Your task to perform on an android device: turn on the 12-hour format for clock Image 0: 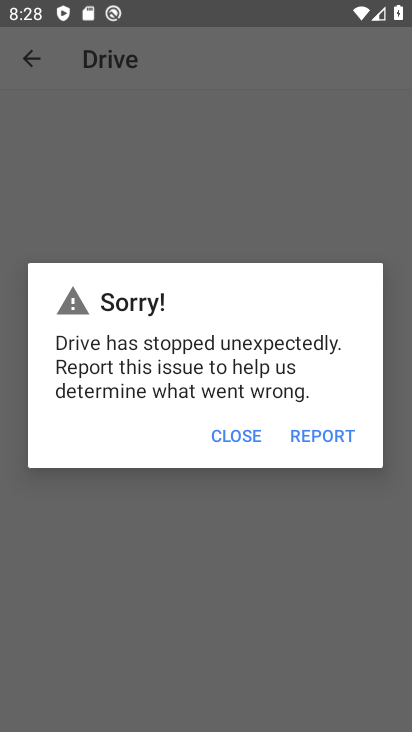
Step 0: press home button
Your task to perform on an android device: turn on the 12-hour format for clock Image 1: 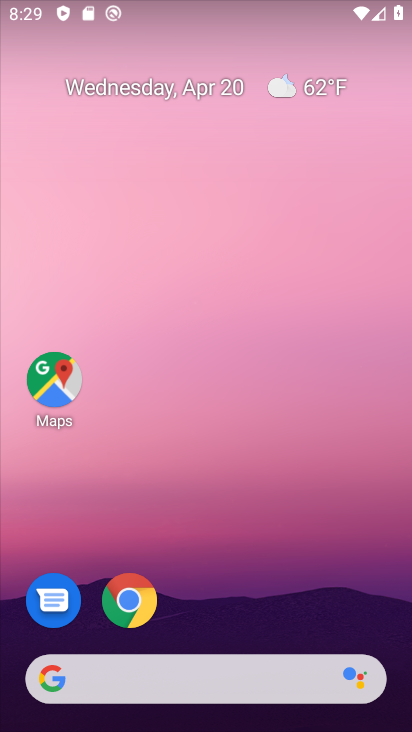
Step 1: drag from (205, 726) to (205, 123)
Your task to perform on an android device: turn on the 12-hour format for clock Image 2: 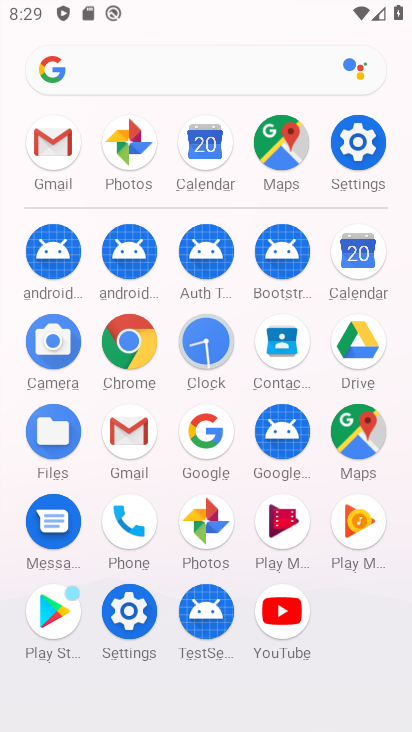
Step 2: click (216, 343)
Your task to perform on an android device: turn on the 12-hour format for clock Image 3: 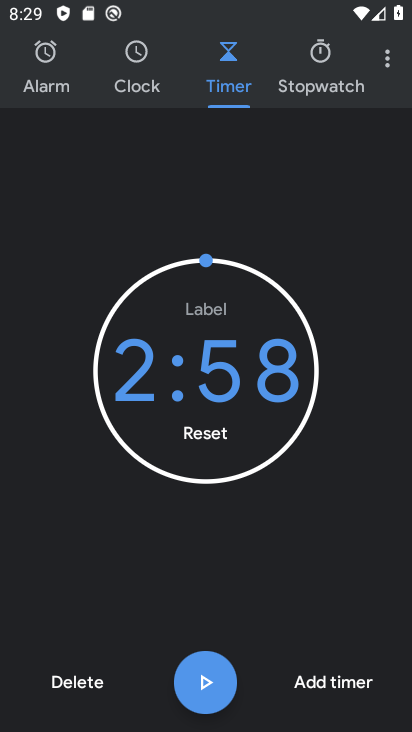
Step 3: click (387, 60)
Your task to perform on an android device: turn on the 12-hour format for clock Image 4: 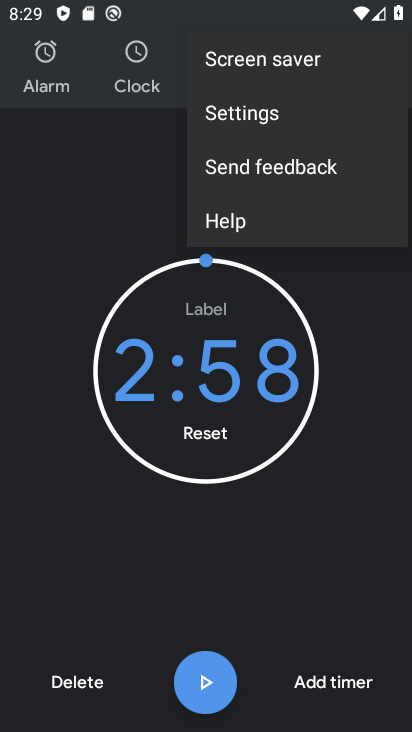
Step 4: click (258, 115)
Your task to perform on an android device: turn on the 12-hour format for clock Image 5: 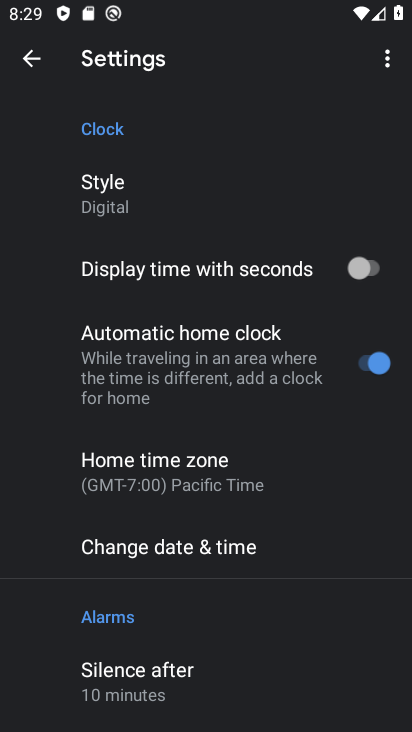
Step 5: click (159, 550)
Your task to perform on an android device: turn on the 12-hour format for clock Image 6: 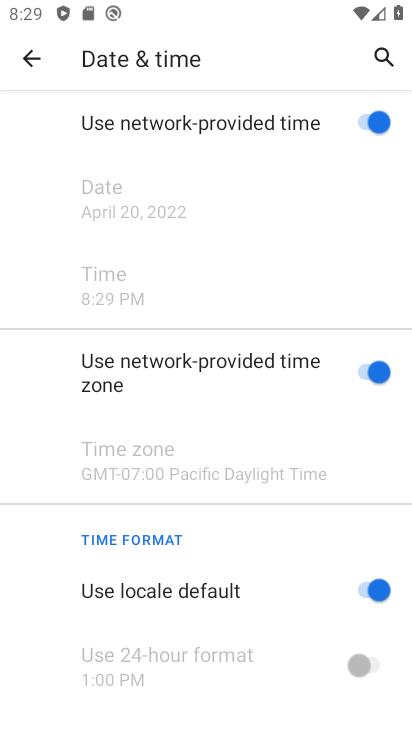
Step 6: task complete